Your task to perform on an android device: open sync settings in chrome Image 0: 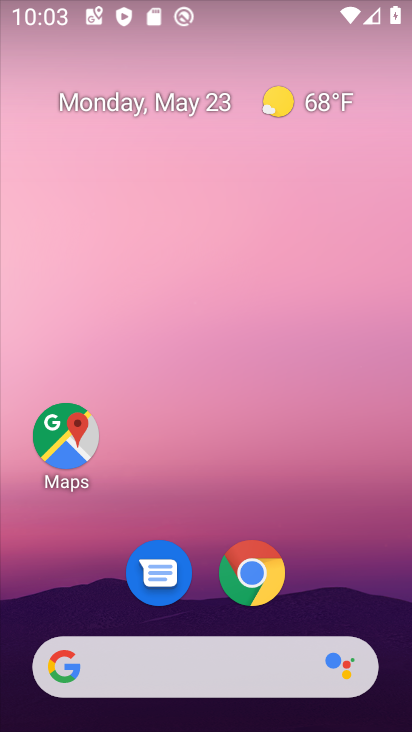
Step 0: drag from (180, 641) to (254, 92)
Your task to perform on an android device: open sync settings in chrome Image 1: 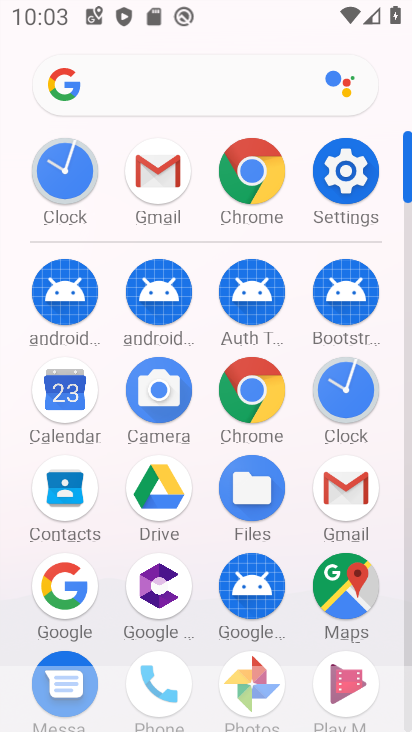
Step 1: click (235, 193)
Your task to perform on an android device: open sync settings in chrome Image 2: 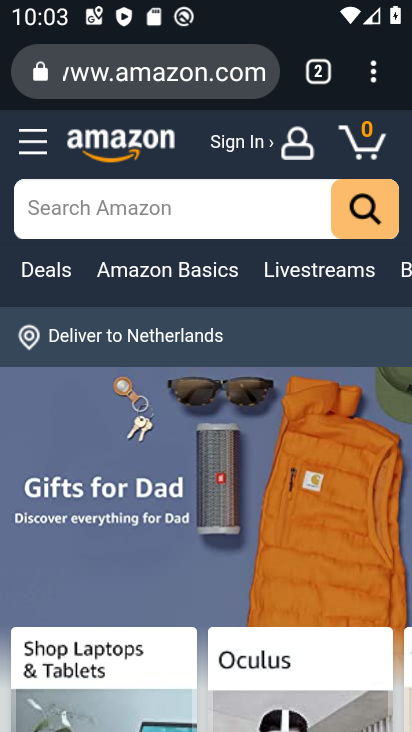
Step 2: click (372, 72)
Your task to perform on an android device: open sync settings in chrome Image 3: 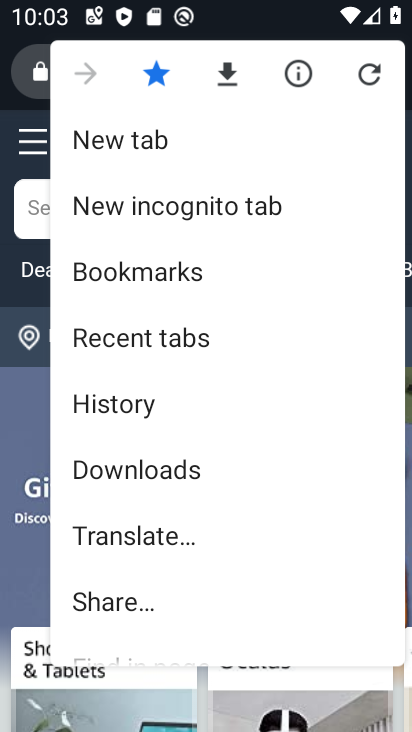
Step 3: drag from (149, 570) to (187, 98)
Your task to perform on an android device: open sync settings in chrome Image 4: 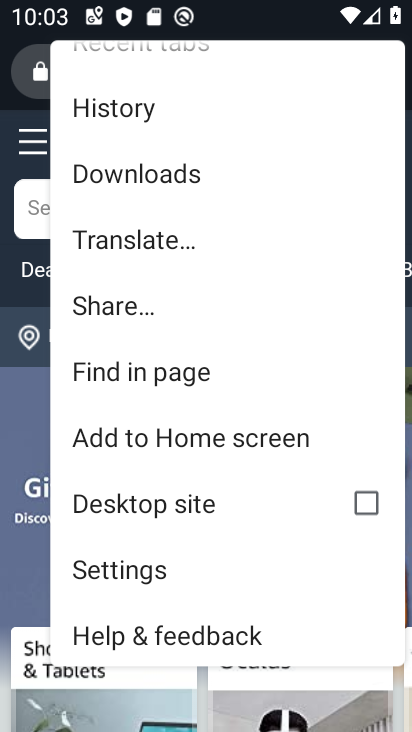
Step 4: click (154, 574)
Your task to perform on an android device: open sync settings in chrome Image 5: 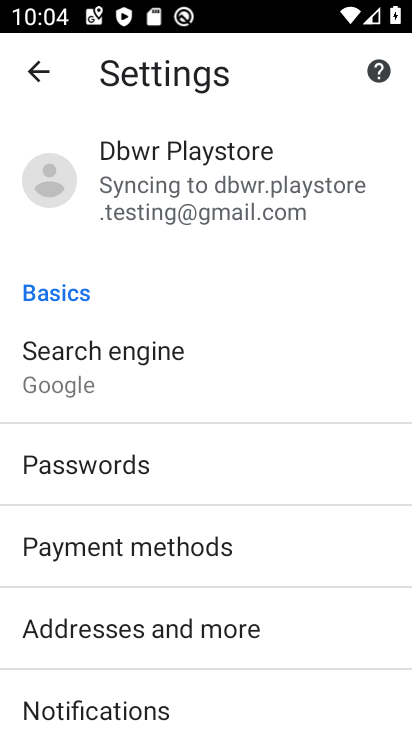
Step 5: click (216, 192)
Your task to perform on an android device: open sync settings in chrome Image 6: 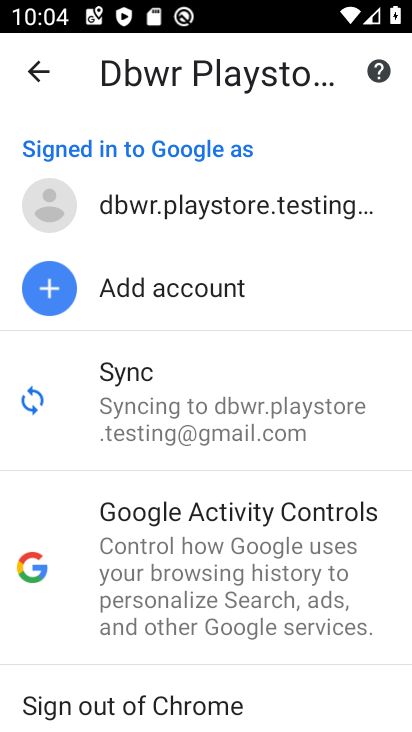
Step 6: click (255, 395)
Your task to perform on an android device: open sync settings in chrome Image 7: 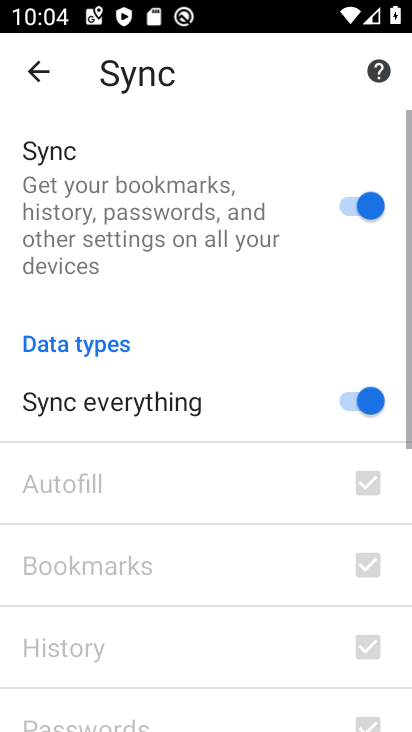
Step 7: task complete